Your task to perform on an android device: Open the web browser Image 0: 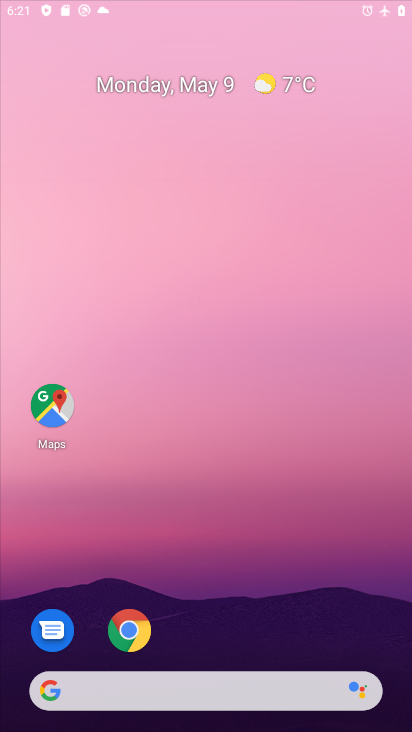
Step 0: drag from (261, 610) to (190, 48)
Your task to perform on an android device: Open the web browser Image 1: 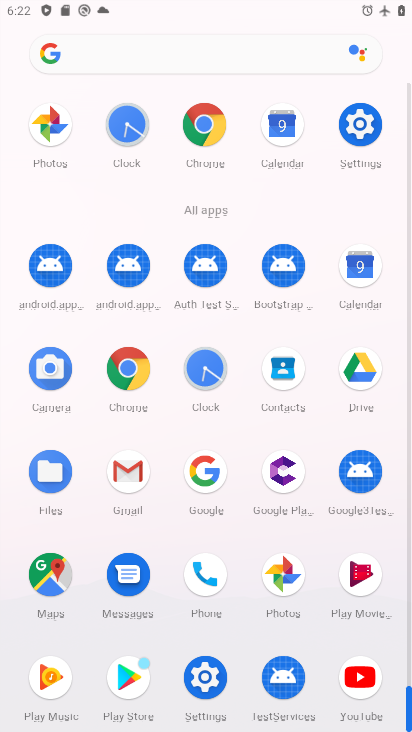
Step 1: click (196, 162)
Your task to perform on an android device: Open the web browser Image 2: 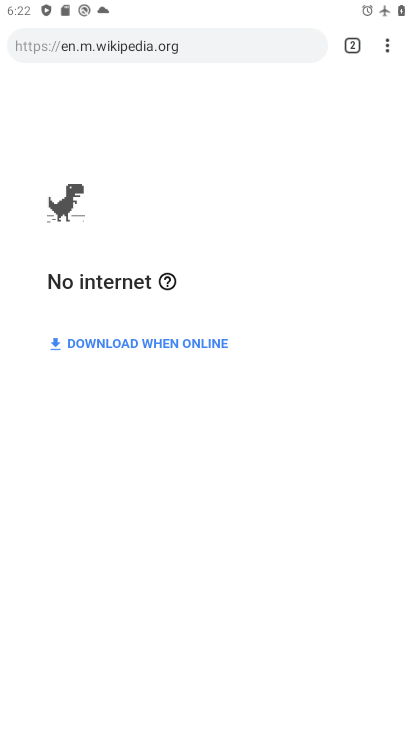
Step 2: task complete